Your task to perform on an android device: turn off smart reply in the gmail app Image 0: 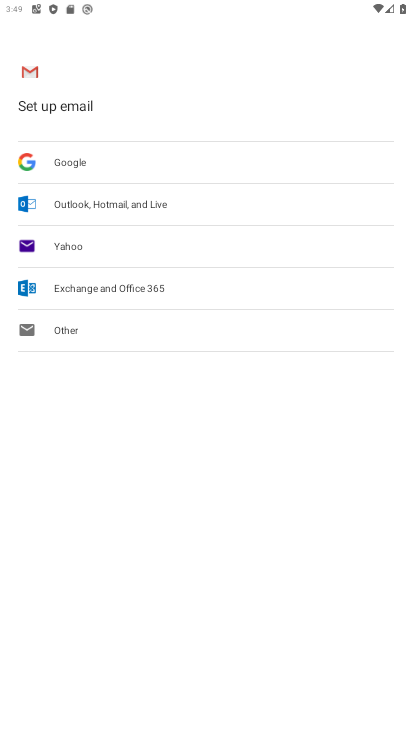
Step 0: press home button
Your task to perform on an android device: turn off smart reply in the gmail app Image 1: 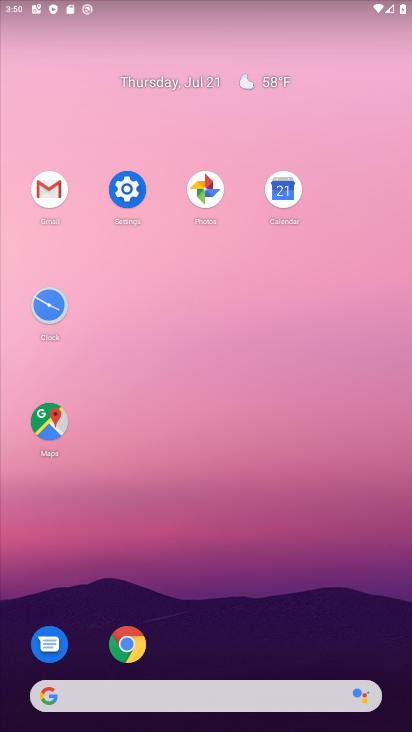
Step 1: click (43, 205)
Your task to perform on an android device: turn off smart reply in the gmail app Image 2: 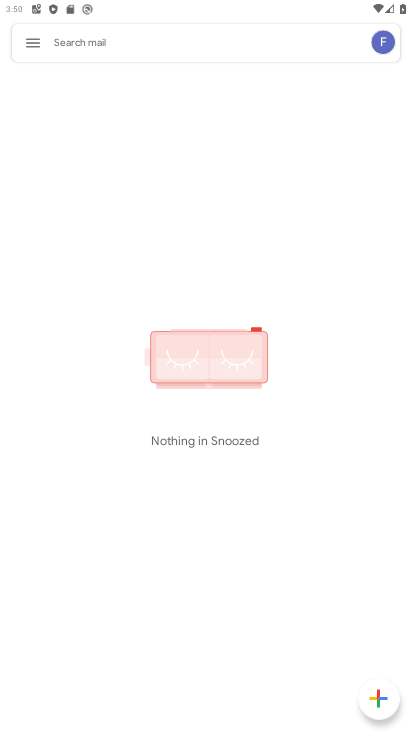
Step 2: click (38, 37)
Your task to perform on an android device: turn off smart reply in the gmail app Image 3: 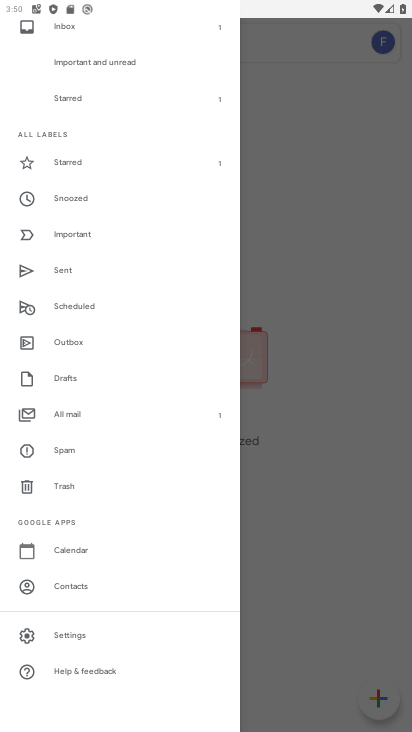
Step 3: click (66, 638)
Your task to perform on an android device: turn off smart reply in the gmail app Image 4: 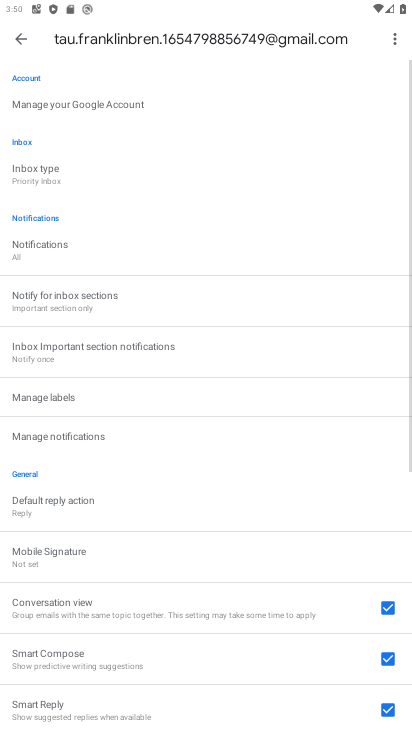
Step 4: drag from (164, 505) to (252, 129)
Your task to perform on an android device: turn off smart reply in the gmail app Image 5: 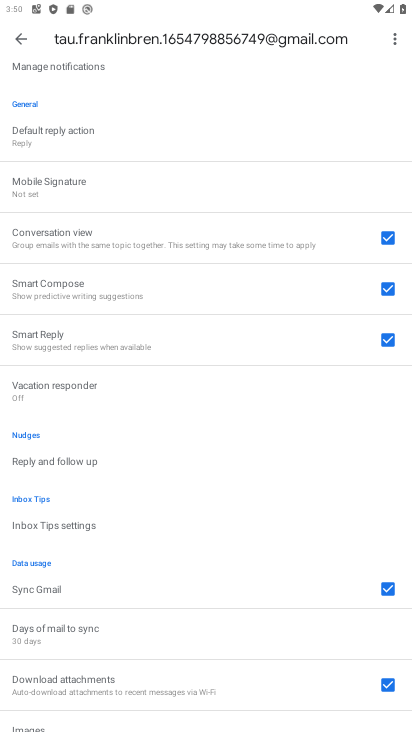
Step 5: click (391, 340)
Your task to perform on an android device: turn off smart reply in the gmail app Image 6: 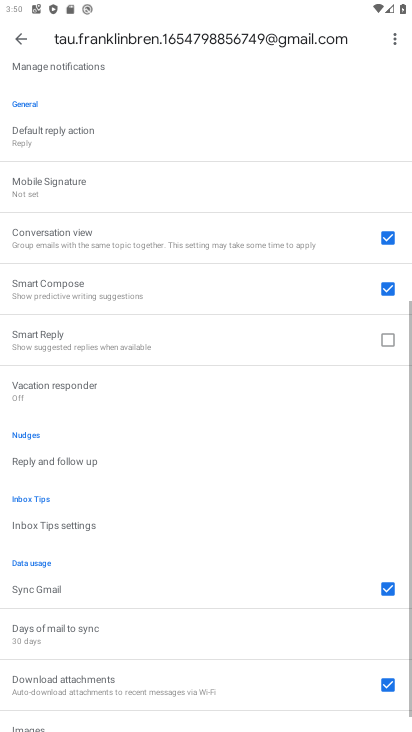
Step 6: task complete